Your task to perform on an android device: check android version Image 0: 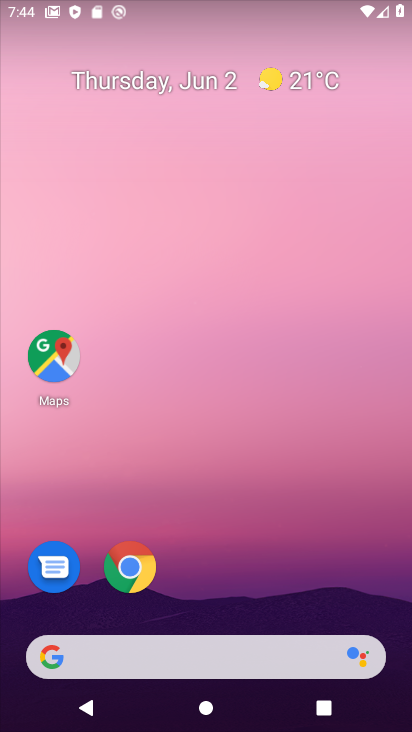
Step 0: drag from (353, 593) to (259, 55)
Your task to perform on an android device: check android version Image 1: 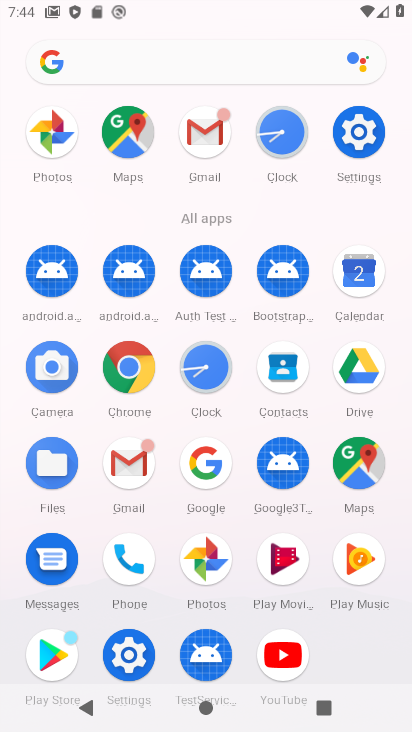
Step 1: click (129, 657)
Your task to perform on an android device: check android version Image 2: 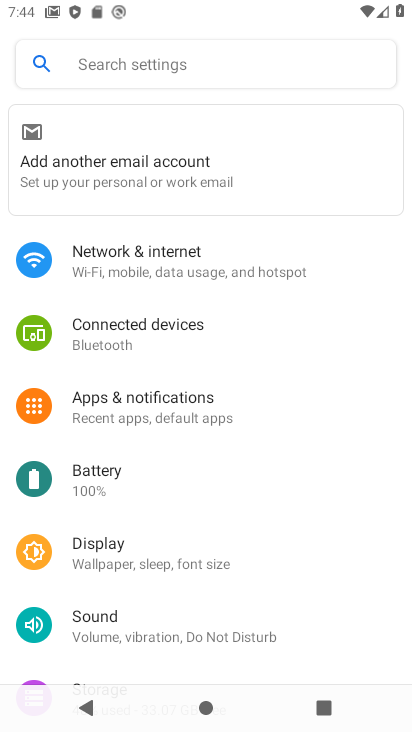
Step 2: drag from (286, 609) to (298, 152)
Your task to perform on an android device: check android version Image 3: 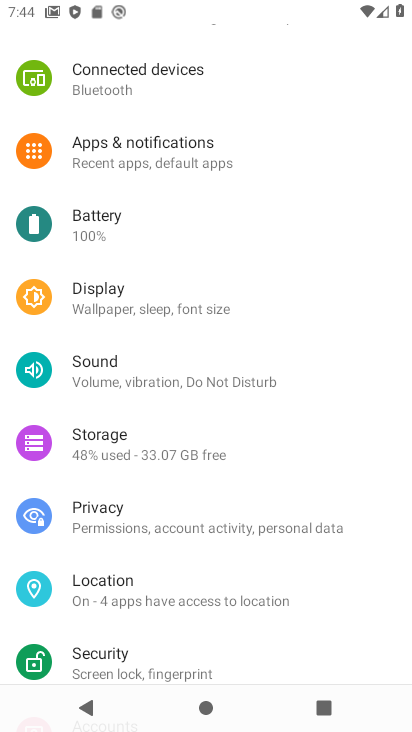
Step 3: drag from (361, 576) to (272, 147)
Your task to perform on an android device: check android version Image 4: 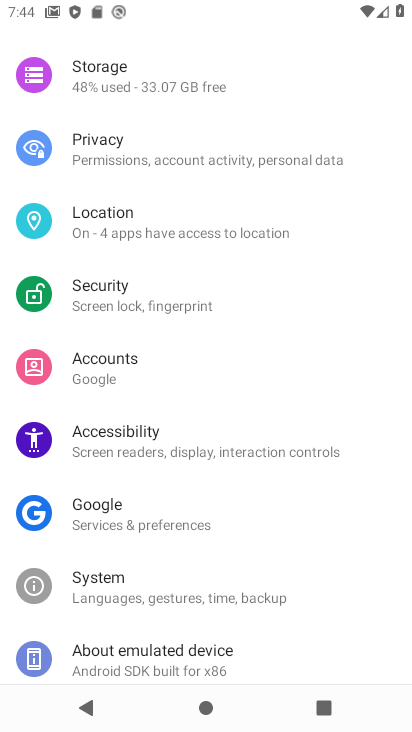
Step 4: click (97, 649)
Your task to perform on an android device: check android version Image 5: 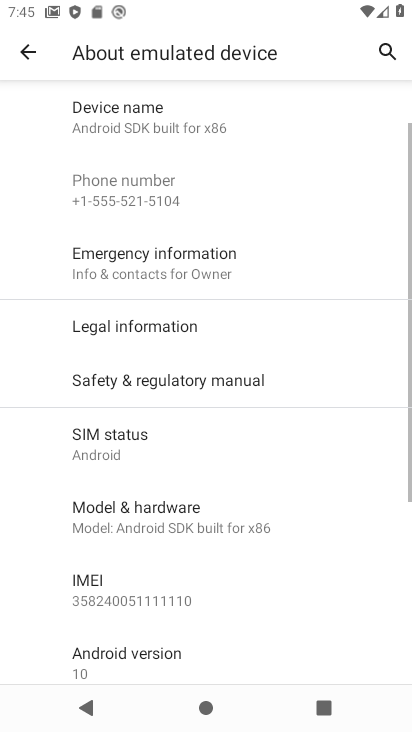
Step 5: drag from (221, 639) to (275, 325)
Your task to perform on an android device: check android version Image 6: 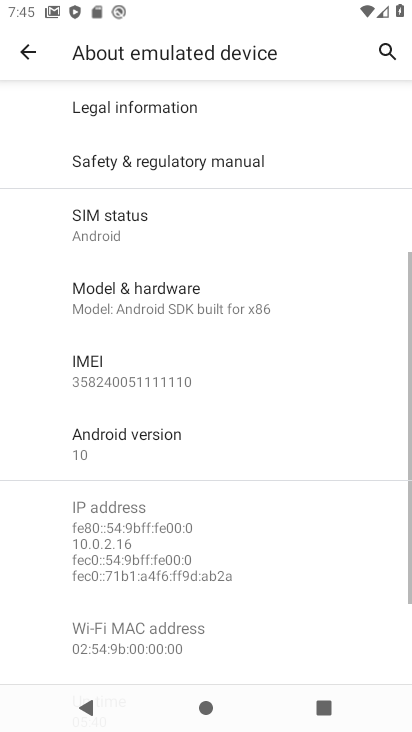
Step 6: click (118, 438)
Your task to perform on an android device: check android version Image 7: 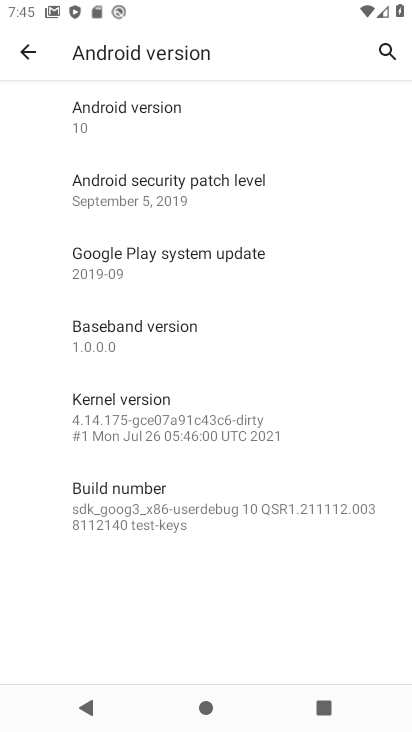
Step 7: task complete